Your task to perform on an android device: When is my next appointment? Image 0: 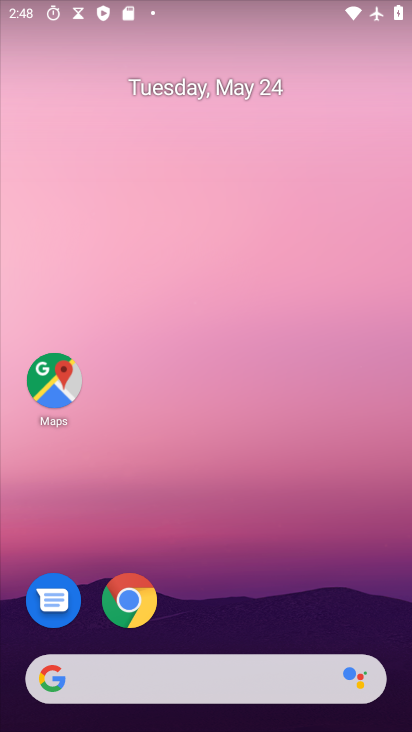
Step 0: drag from (270, 542) to (236, 31)
Your task to perform on an android device: When is my next appointment? Image 1: 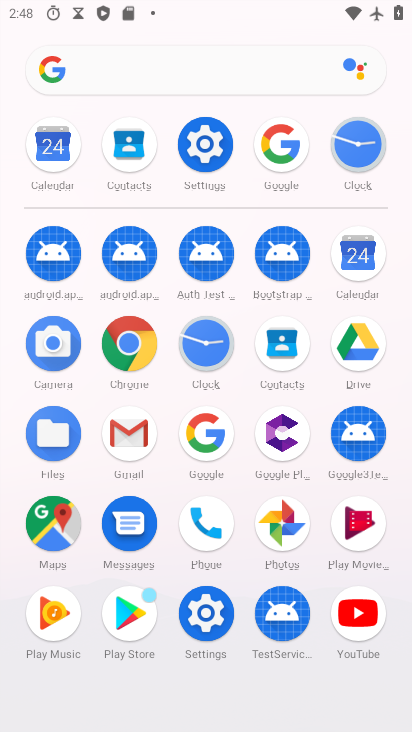
Step 1: click (355, 250)
Your task to perform on an android device: When is my next appointment? Image 2: 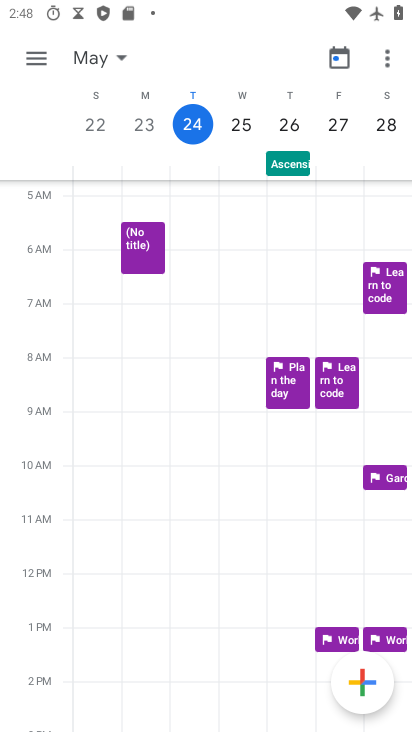
Step 2: task complete